Your task to perform on an android device: Go to calendar. Show me events next week Image 0: 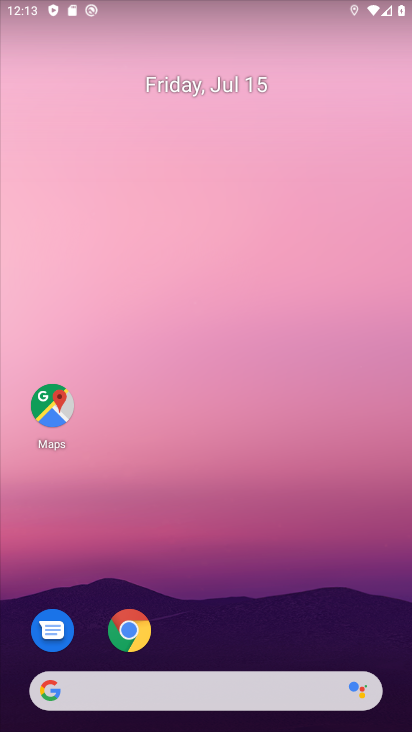
Step 0: click (47, 411)
Your task to perform on an android device: Go to calendar. Show me events next week Image 1: 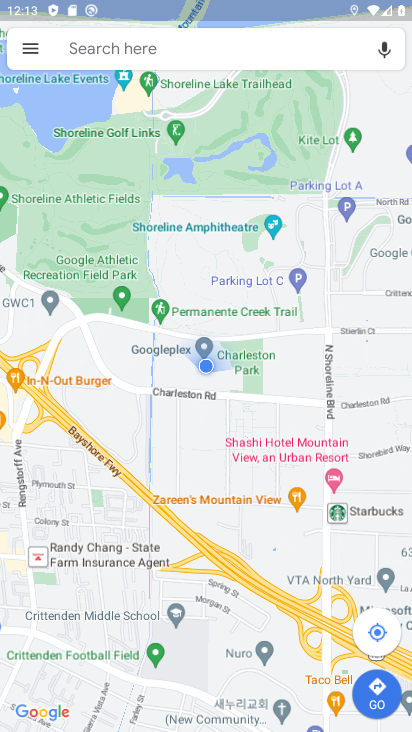
Step 1: click (29, 49)
Your task to perform on an android device: Go to calendar. Show me events next week Image 2: 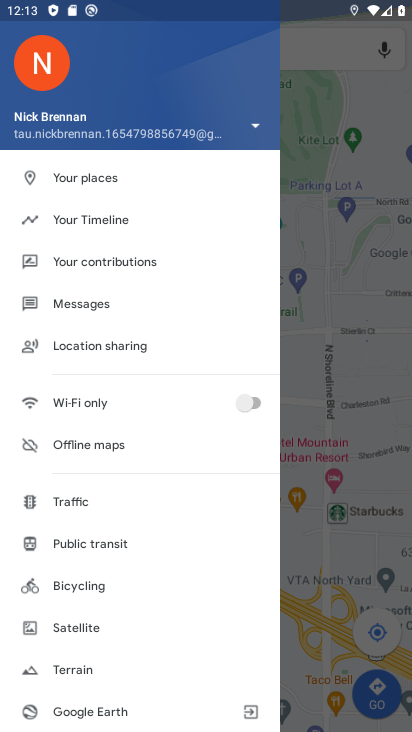
Step 2: drag from (96, 432) to (119, 303)
Your task to perform on an android device: Go to calendar. Show me events next week Image 3: 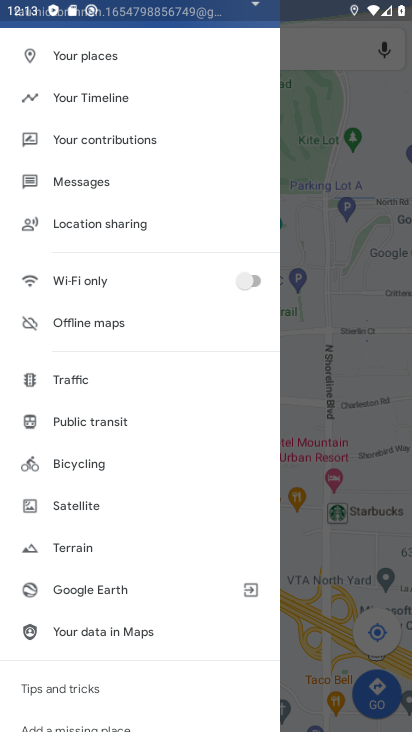
Step 3: press home button
Your task to perform on an android device: Go to calendar. Show me events next week Image 4: 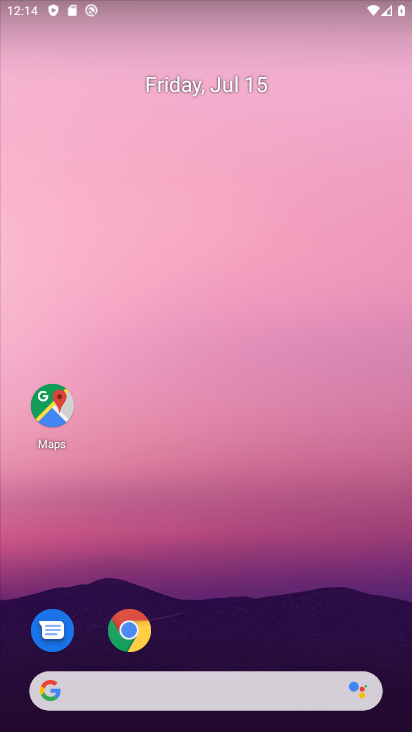
Step 4: drag from (189, 500) to (168, 199)
Your task to perform on an android device: Go to calendar. Show me events next week Image 5: 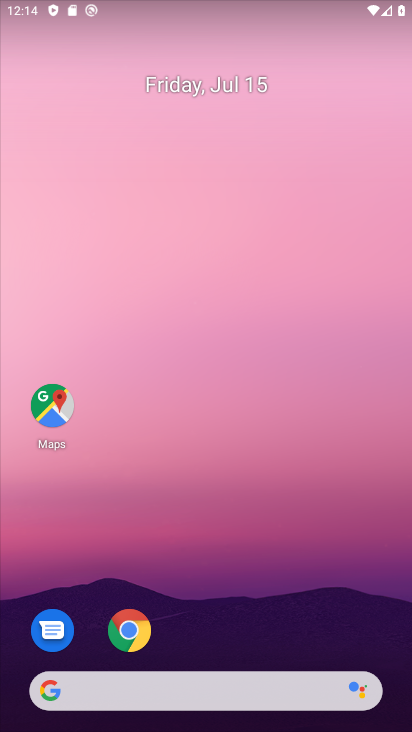
Step 5: drag from (182, 596) to (205, 115)
Your task to perform on an android device: Go to calendar. Show me events next week Image 6: 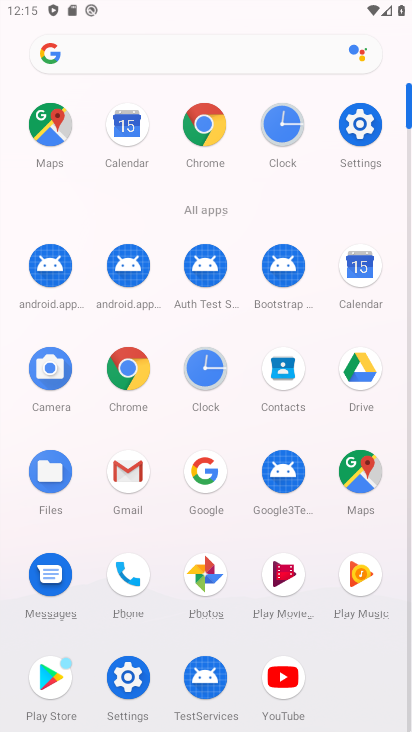
Step 6: click (355, 268)
Your task to perform on an android device: Go to calendar. Show me events next week Image 7: 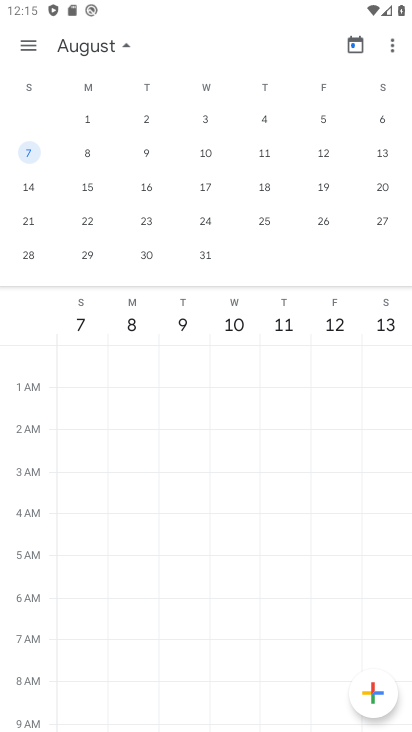
Step 7: click (98, 53)
Your task to perform on an android device: Go to calendar. Show me events next week Image 8: 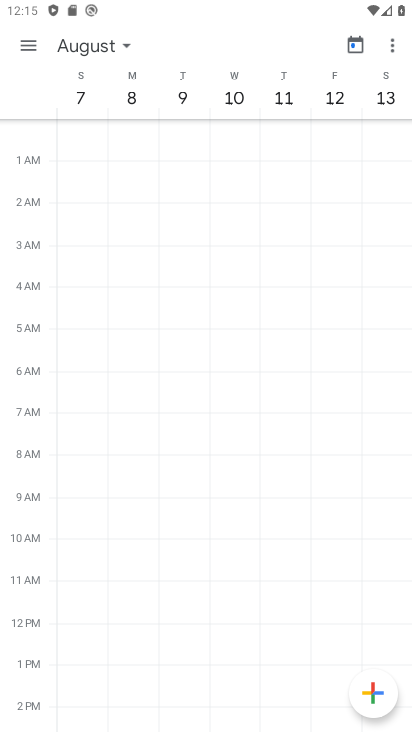
Step 8: click (83, 56)
Your task to perform on an android device: Go to calendar. Show me events next week Image 9: 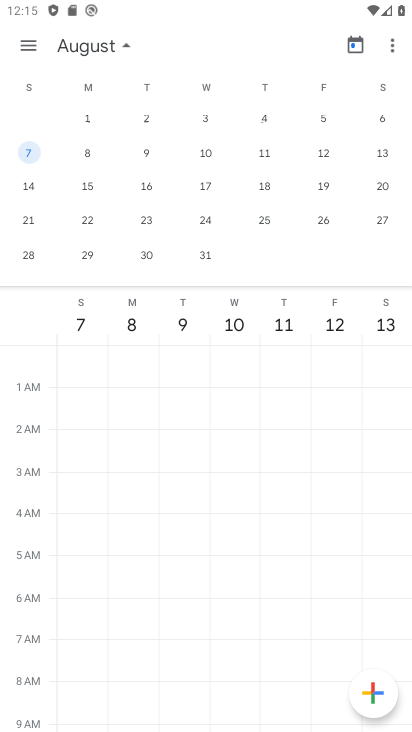
Step 9: drag from (136, 161) to (408, 191)
Your task to perform on an android device: Go to calendar. Show me events next week Image 10: 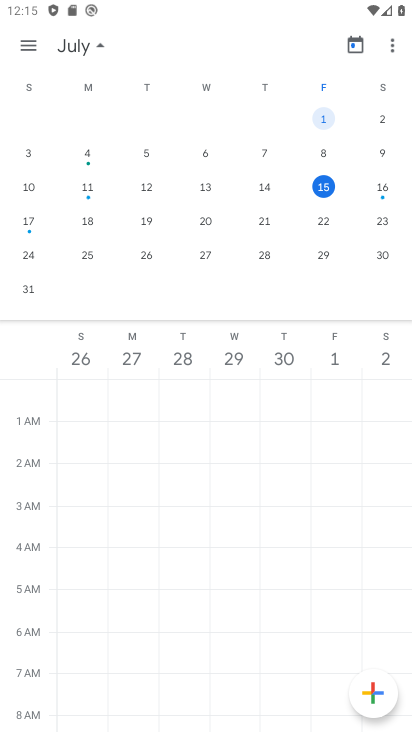
Step 10: click (27, 225)
Your task to perform on an android device: Go to calendar. Show me events next week Image 11: 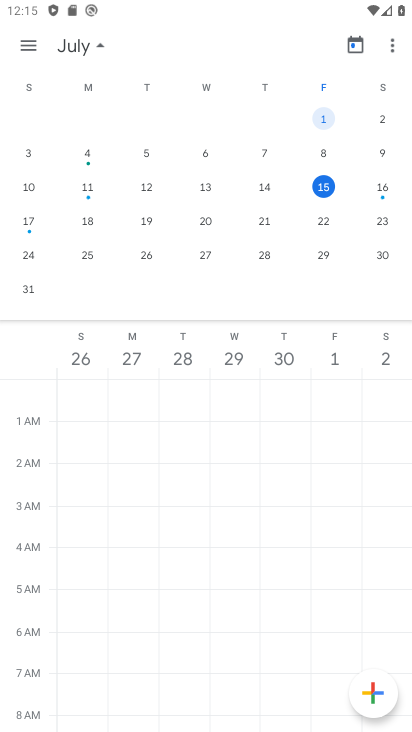
Step 11: click (27, 225)
Your task to perform on an android device: Go to calendar. Show me events next week Image 12: 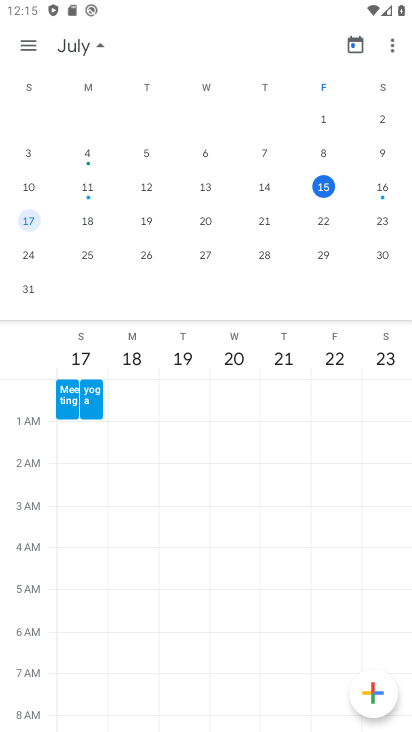
Step 12: task complete